Your task to perform on an android device: turn off airplane mode Image 0: 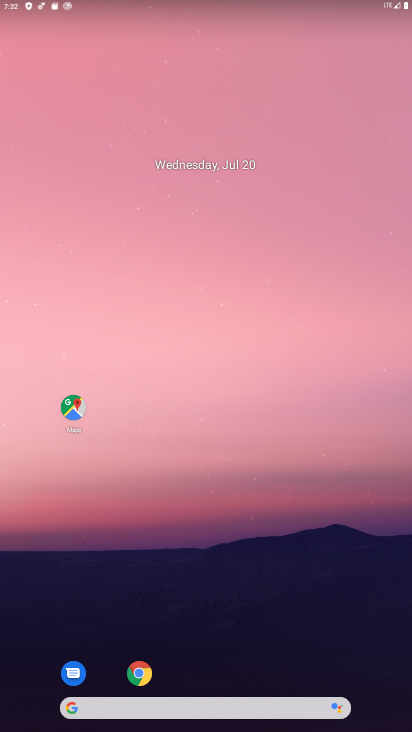
Step 0: drag from (309, 534) to (239, 49)
Your task to perform on an android device: turn off airplane mode Image 1: 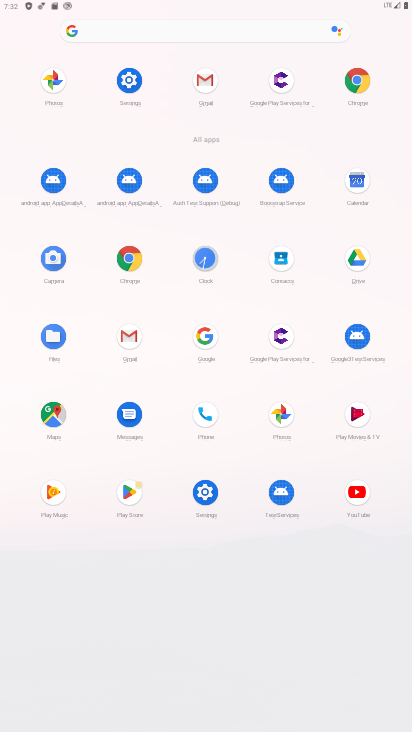
Step 1: click (127, 82)
Your task to perform on an android device: turn off airplane mode Image 2: 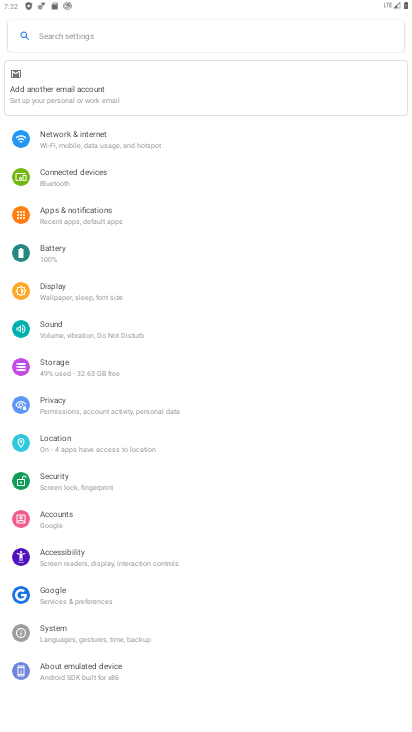
Step 2: click (67, 137)
Your task to perform on an android device: turn off airplane mode Image 3: 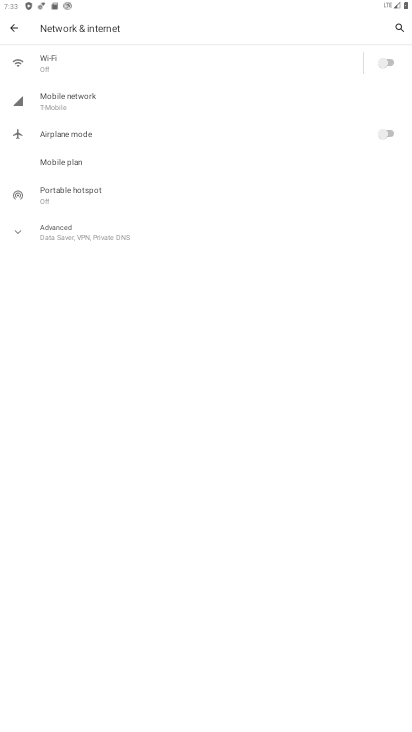
Step 3: task complete